Your task to perform on an android device: choose inbox layout in the gmail app Image 0: 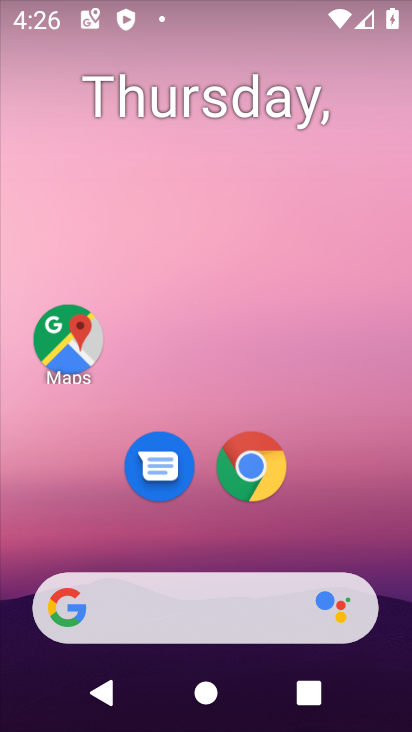
Step 0: drag from (357, 463) to (316, 22)
Your task to perform on an android device: choose inbox layout in the gmail app Image 1: 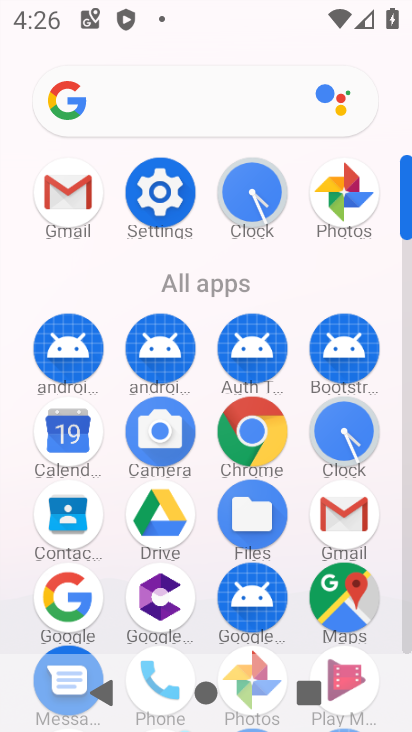
Step 1: click (62, 189)
Your task to perform on an android device: choose inbox layout in the gmail app Image 2: 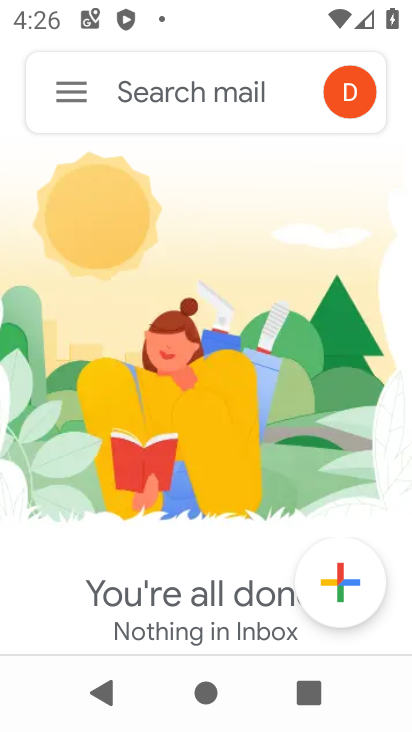
Step 2: click (64, 101)
Your task to perform on an android device: choose inbox layout in the gmail app Image 3: 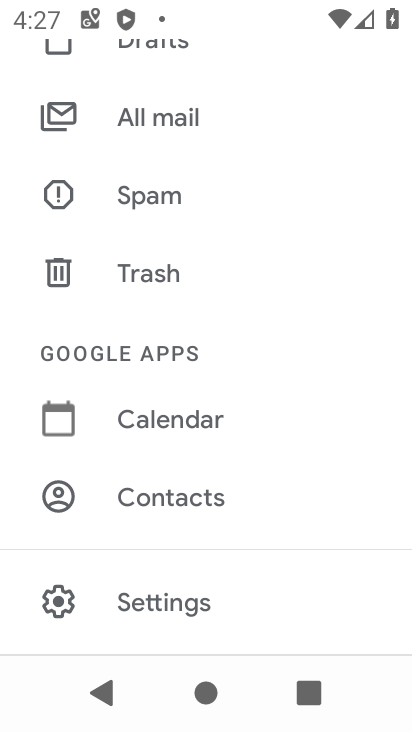
Step 3: drag from (247, 238) to (288, 488)
Your task to perform on an android device: choose inbox layout in the gmail app Image 4: 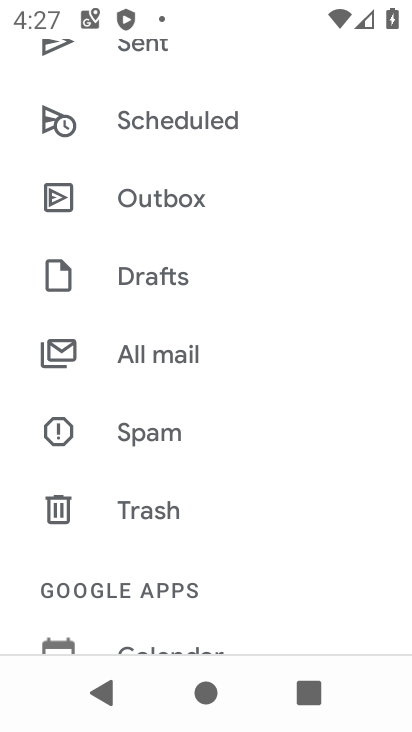
Step 4: drag from (254, 203) to (308, 548)
Your task to perform on an android device: choose inbox layout in the gmail app Image 5: 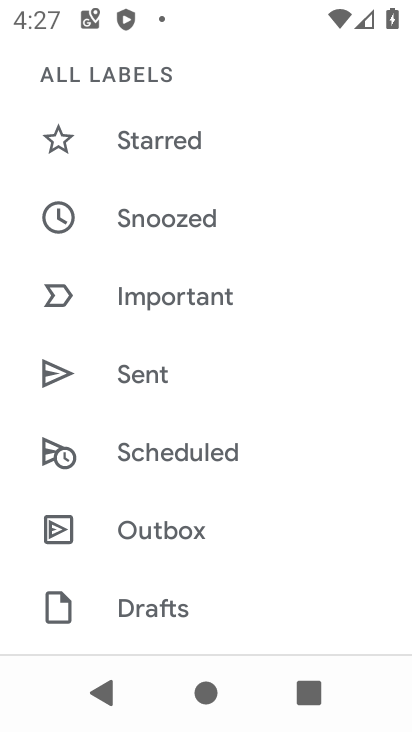
Step 5: drag from (271, 312) to (315, 630)
Your task to perform on an android device: choose inbox layout in the gmail app Image 6: 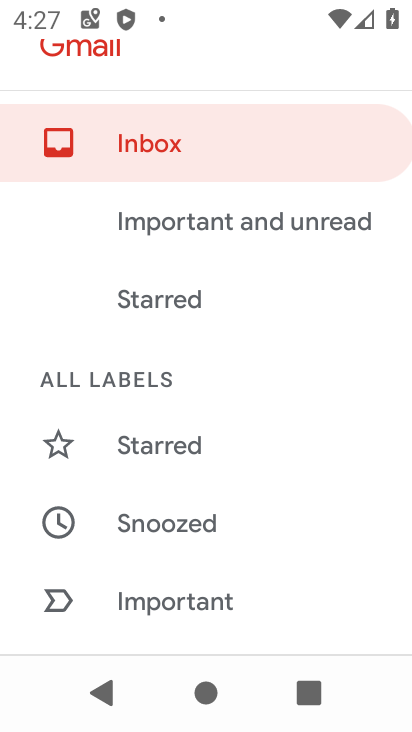
Step 6: drag from (289, 605) to (234, 156)
Your task to perform on an android device: choose inbox layout in the gmail app Image 7: 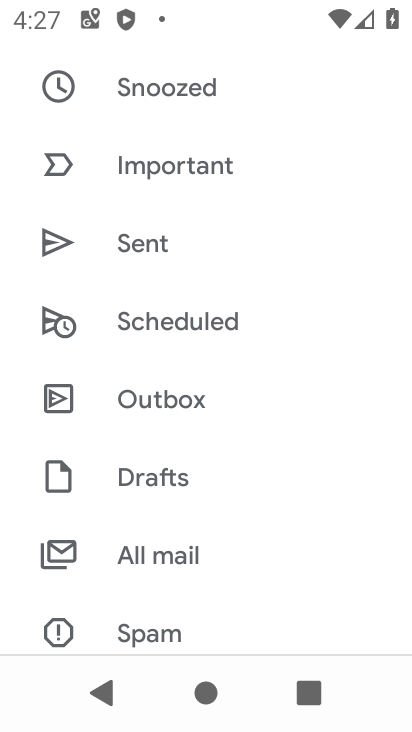
Step 7: drag from (262, 511) to (263, 30)
Your task to perform on an android device: choose inbox layout in the gmail app Image 8: 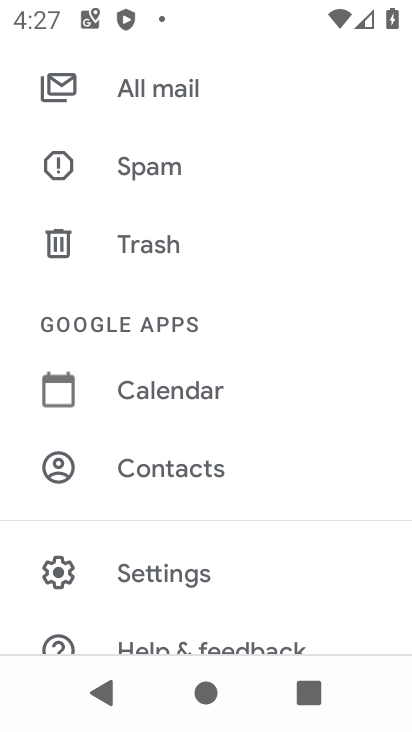
Step 8: click (189, 554)
Your task to perform on an android device: choose inbox layout in the gmail app Image 9: 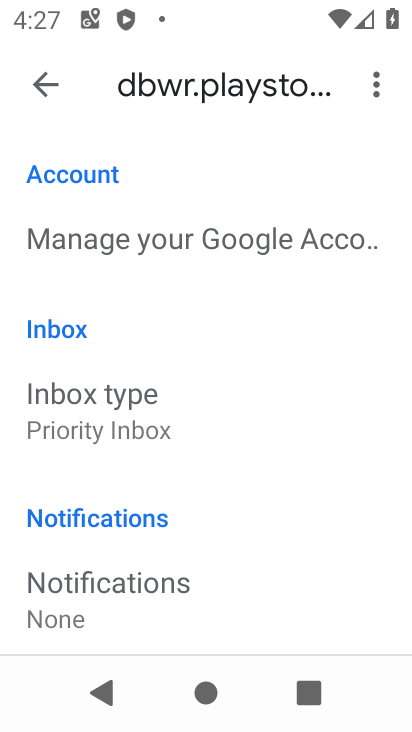
Step 9: click (64, 421)
Your task to perform on an android device: choose inbox layout in the gmail app Image 10: 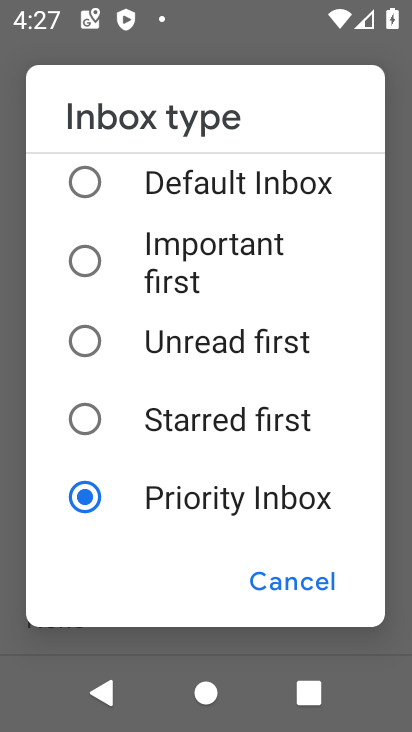
Step 10: click (90, 350)
Your task to perform on an android device: choose inbox layout in the gmail app Image 11: 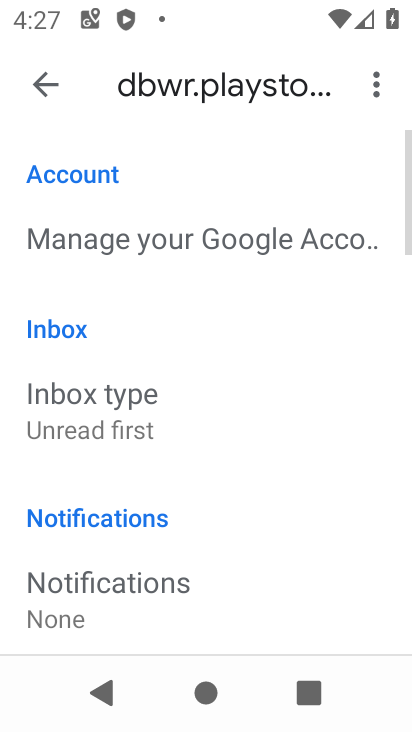
Step 11: task complete